Your task to perform on an android device: Go to Yahoo.com Image 0: 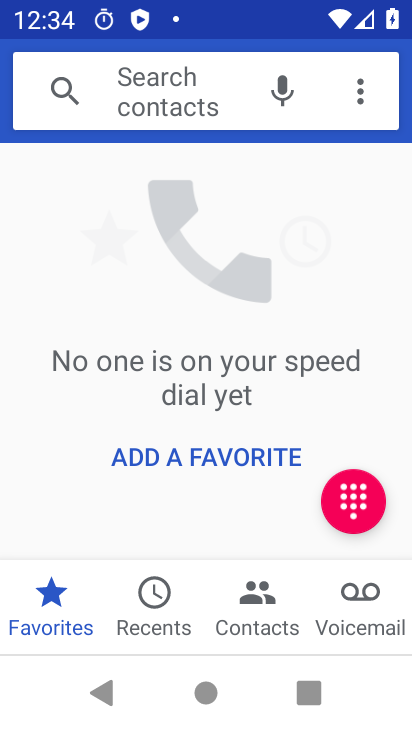
Step 0: press home button
Your task to perform on an android device: Go to Yahoo.com Image 1: 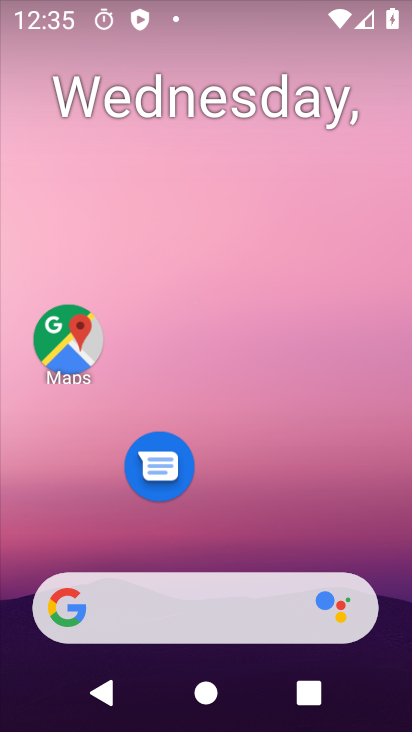
Step 1: drag from (306, 504) to (297, 125)
Your task to perform on an android device: Go to Yahoo.com Image 2: 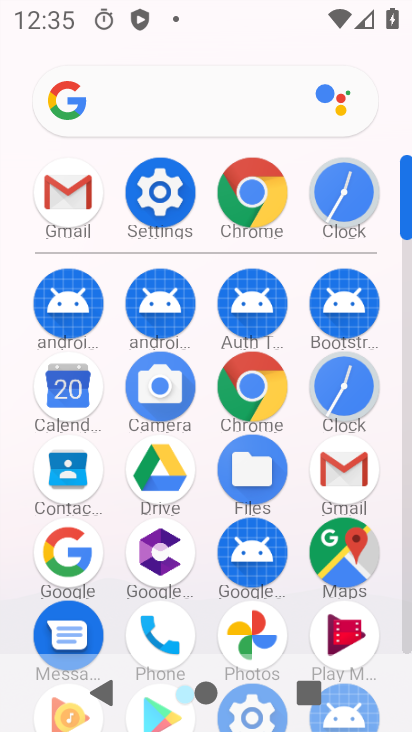
Step 2: click (235, 203)
Your task to perform on an android device: Go to Yahoo.com Image 3: 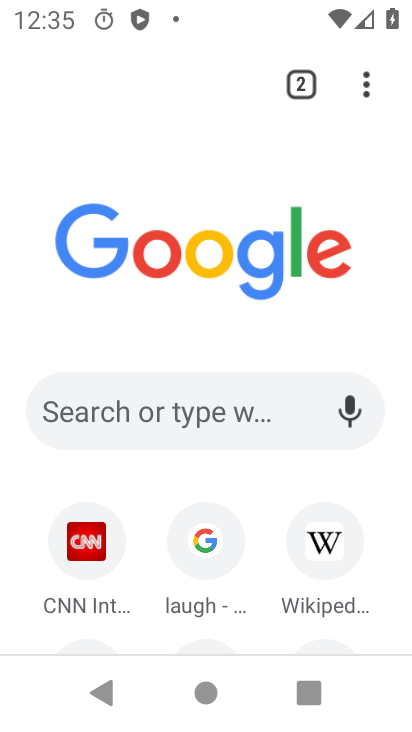
Step 3: click (133, 396)
Your task to perform on an android device: Go to Yahoo.com Image 4: 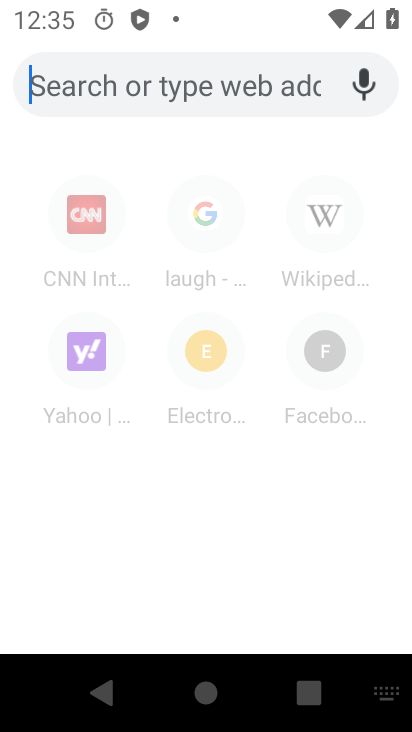
Step 4: type "yahoo.com"
Your task to perform on an android device: Go to Yahoo.com Image 5: 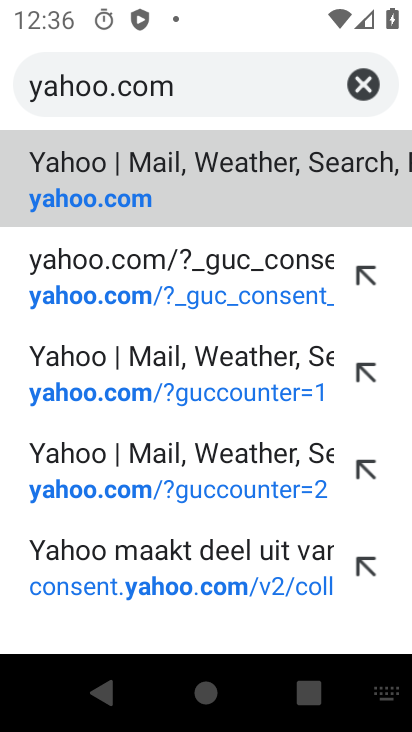
Step 5: click (268, 205)
Your task to perform on an android device: Go to Yahoo.com Image 6: 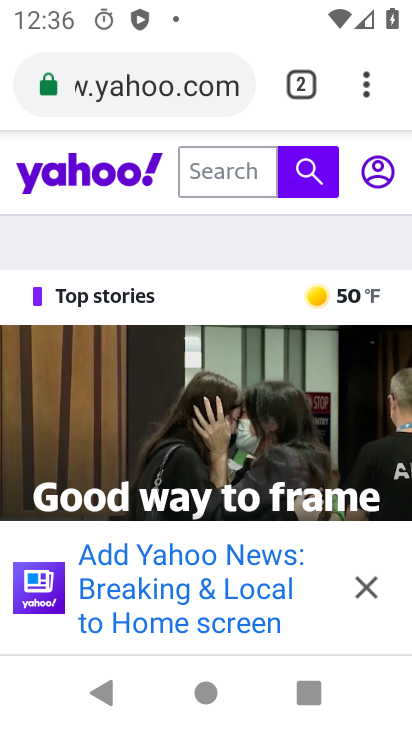
Step 6: task complete